Your task to perform on an android device: turn off airplane mode Image 0: 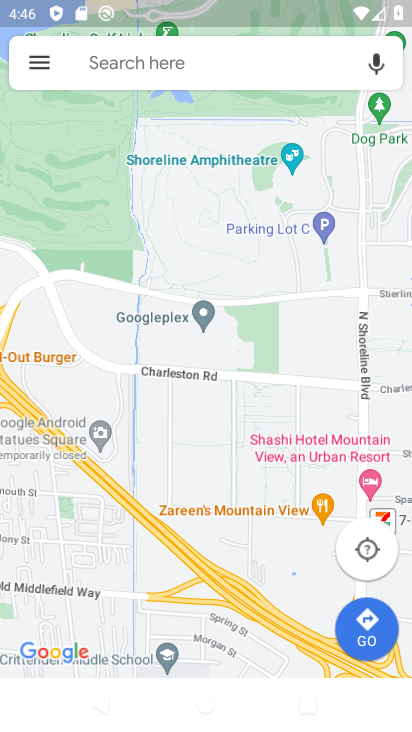
Step 0: press home button
Your task to perform on an android device: turn off airplane mode Image 1: 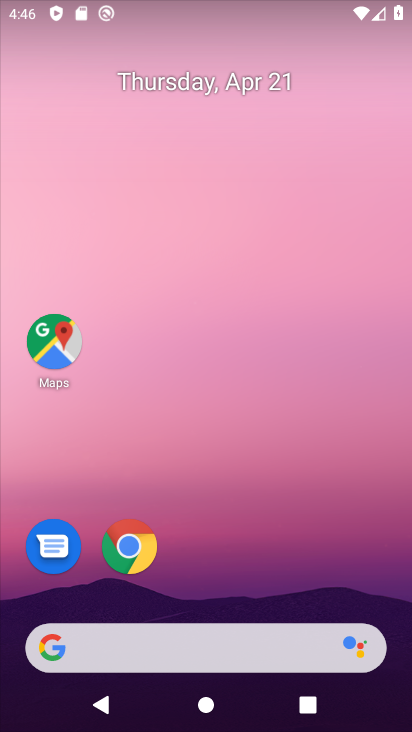
Step 1: drag from (209, 596) to (239, 36)
Your task to perform on an android device: turn off airplane mode Image 2: 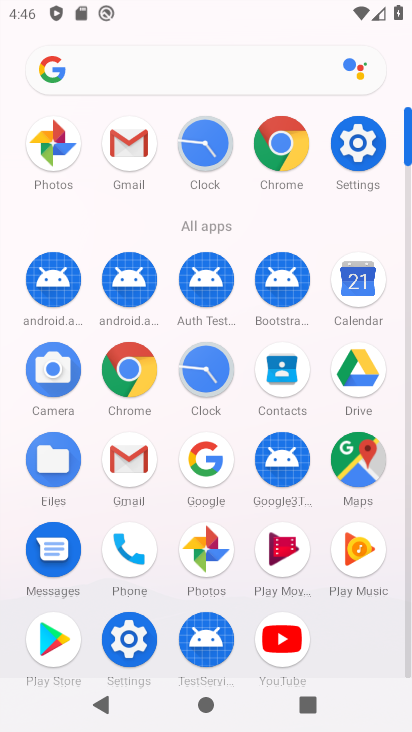
Step 2: click (129, 646)
Your task to perform on an android device: turn off airplane mode Image 3: 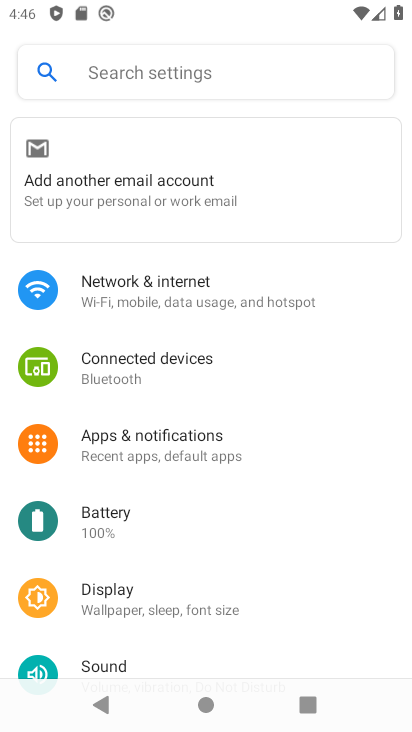
Step 3: click (163, 298)
Your task to perform on an android device: turn off airplane mode Image 4: 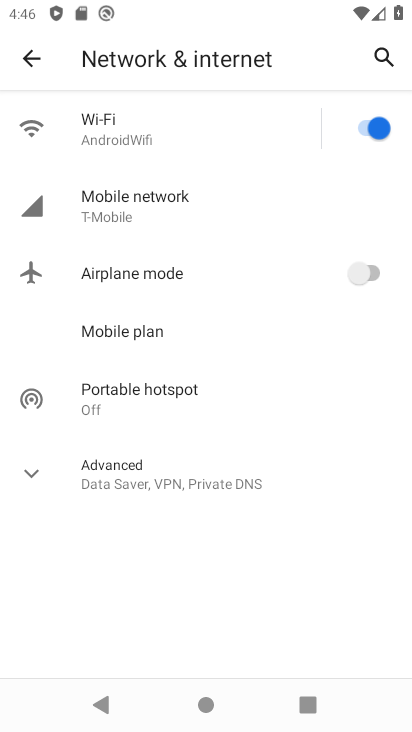
Step 4: task complete